Your task to perform on an android device: turn off airplane mode Image 0: 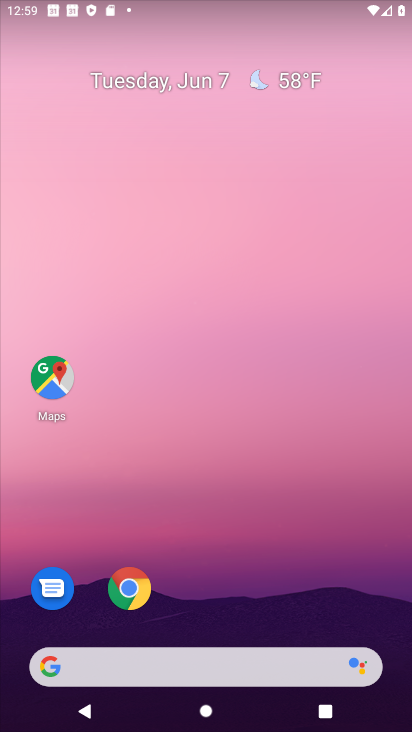
Step 0: task complete